Your task to perform on an android device: set an alarm Image 0: 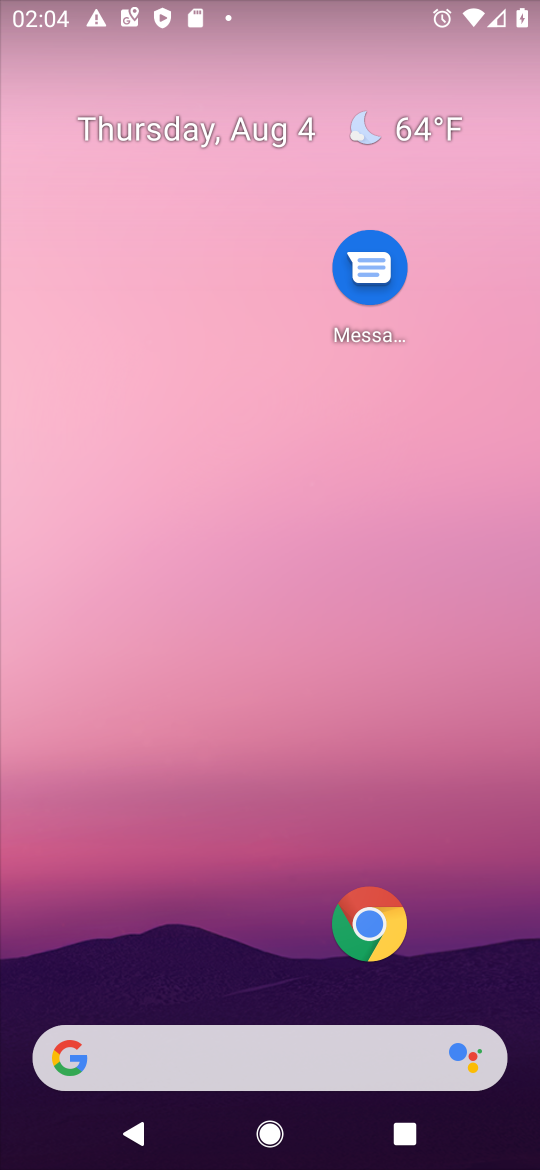
Step 0: drag from (317, 554) to (445, 230)
Your task to perform on an android device: set an alarm Image 1: 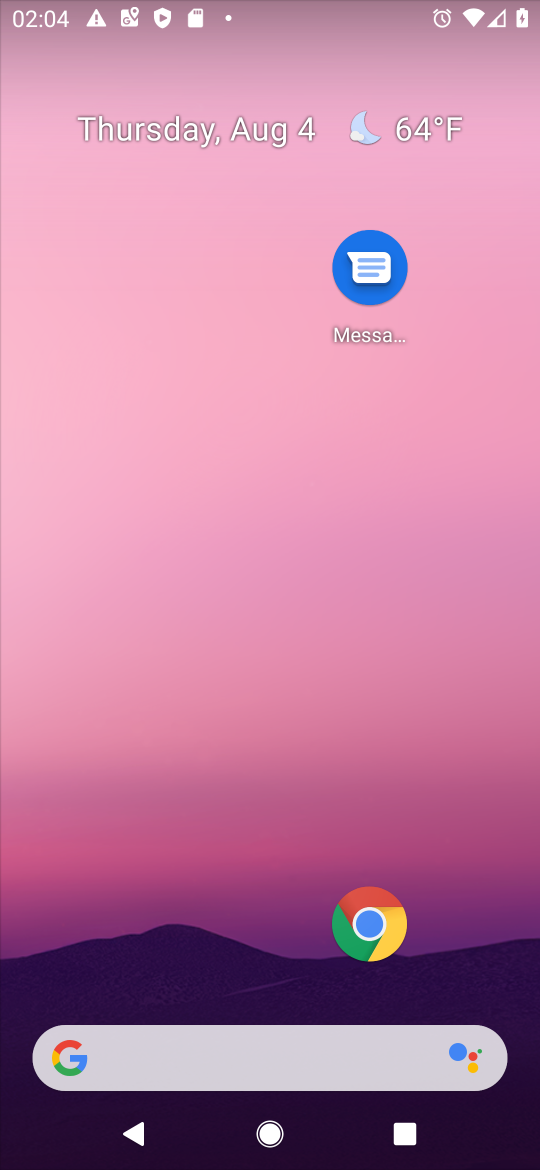
Step 1: drag from (66, 1049) to (357, 12)
Your task to perform on an android device: set an alarm Image 2: 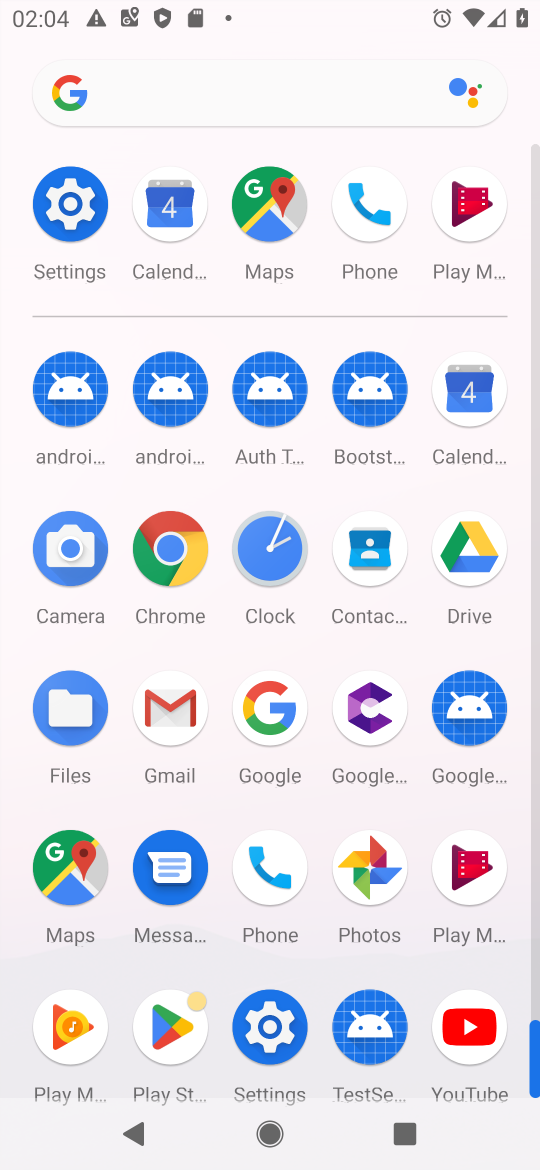
Step 2: click (250, 560)
Your task to perform on an android device: set an alarm Image 3: 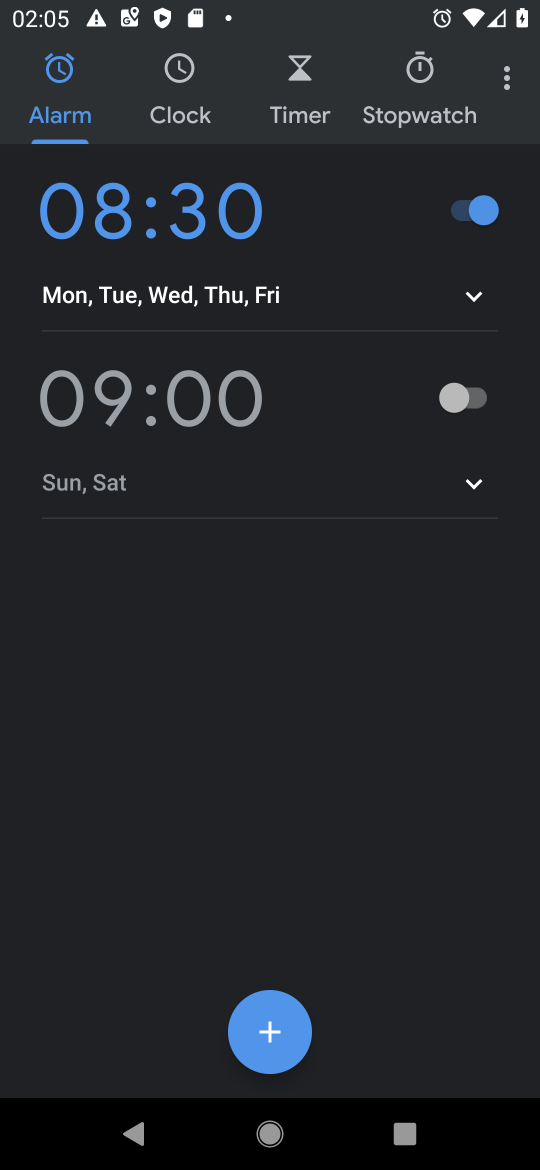
Step 3: task complete